Your task to perform on an android device: change your default location settings in chrome Image 0: 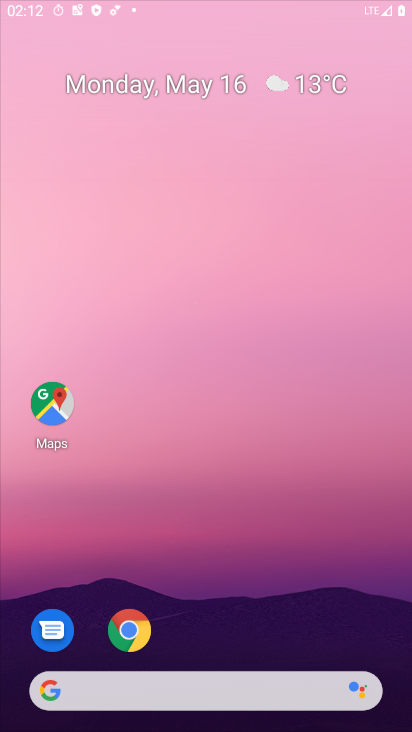
Step 0: click (260, 153)
Your task to perform on an android device: change your default location settings in chrome Image 1: 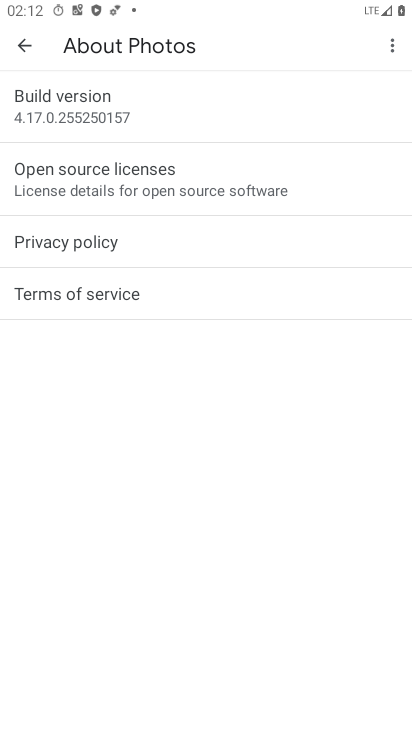
Step 1: press home button
Your task to perform on an android device: change your default location settings in chrome Image 2: 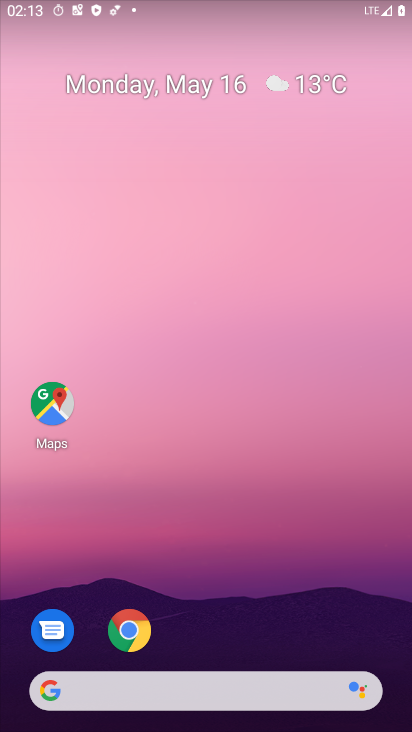
Step 2: drag from (364, 641) to (262, 162)
Your task to perform on an android device: change your default location settings in chrome Image 3: 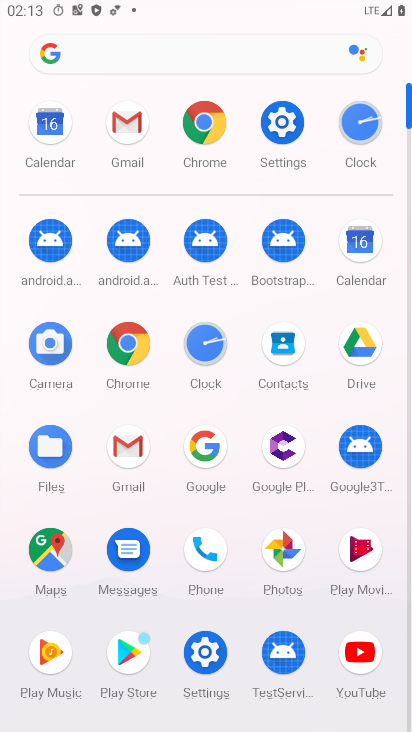
Step 3: click (107, 352)
Your task to perform on an android device: change your default location settings in chrome Image 4: 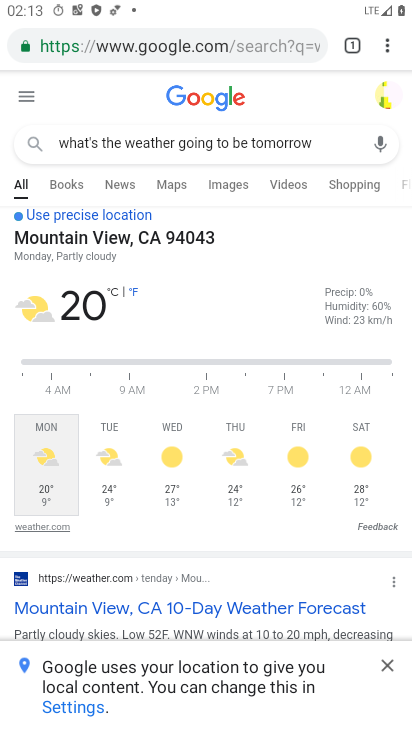
Step 4: drag from (389, 49) to (276, 565)
Your task to perform on an android device: change your default location settings in chrome Image 5: 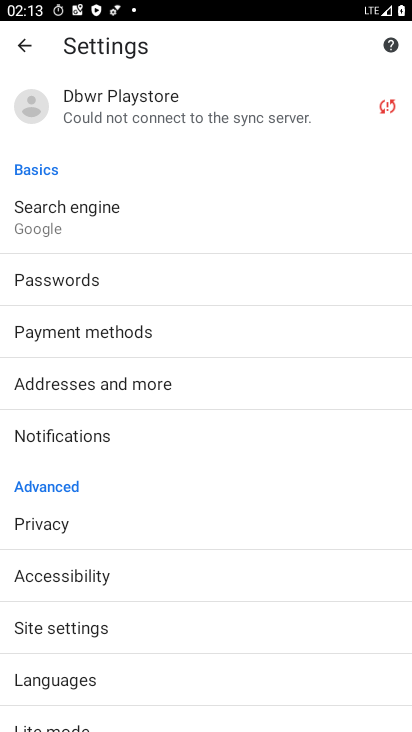
Step 5: drag from (159, 635) to (204, 269)
Your task to perform on an android device: change your default location settings in chrome Image 6: 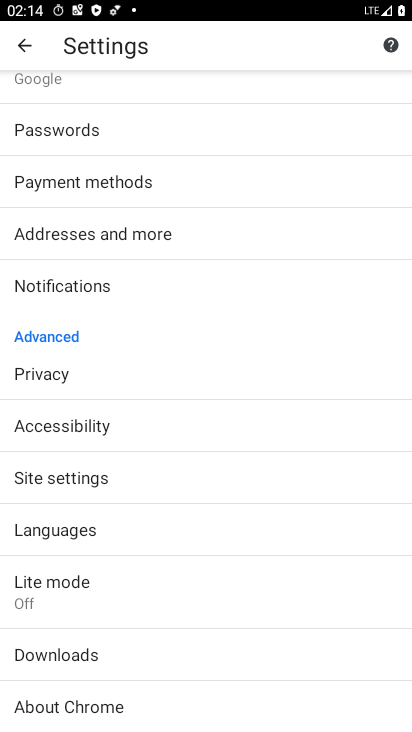
Step 6: click (138, 481)
Your task to perform on an android device: change your default location settings in chrome Image 7: 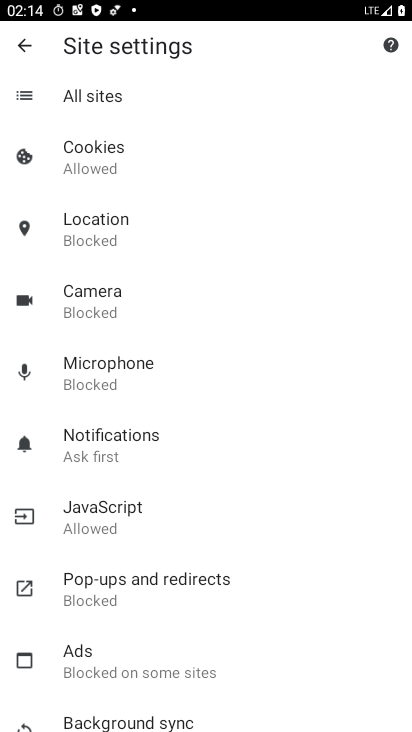
Step 7: click (129, 222)
Your task to perform on an android device: change your default location settings in chrome Image 8: 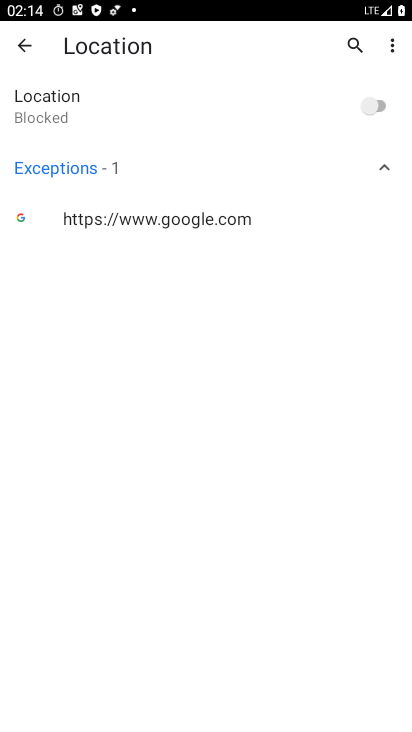
Step 8: click (380, 108)
Your task to perform on an android device: change your default location settings in chrome Image 9: 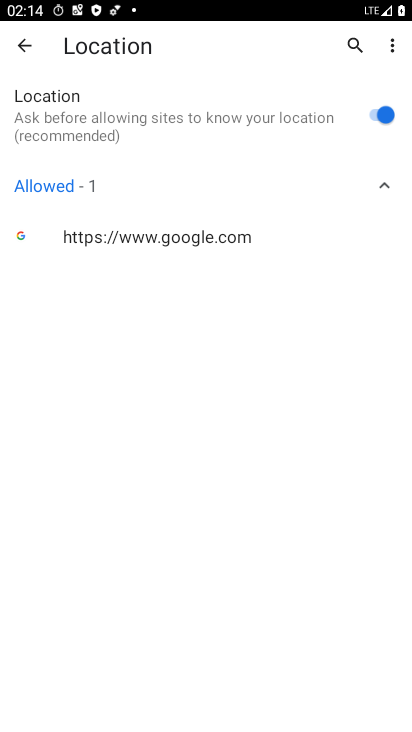
Step 9: task complete